Your task to perform on an android device: toggle data saver in the chrome app Image 0: 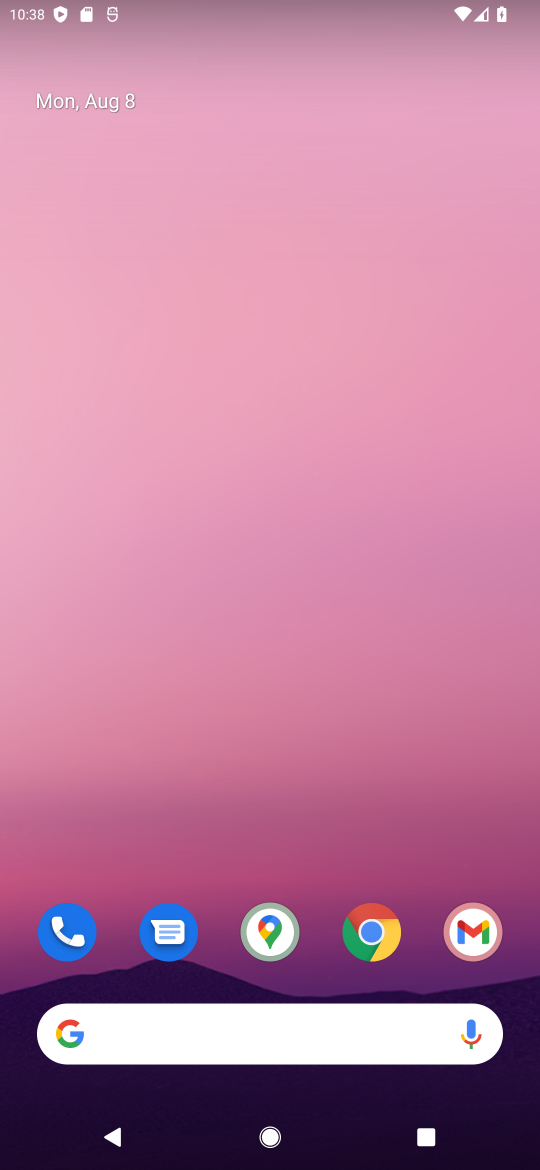
Step 0: click (391, 916)
Your task to perform on an android device: toggle data saver in the chrome app Image 1: 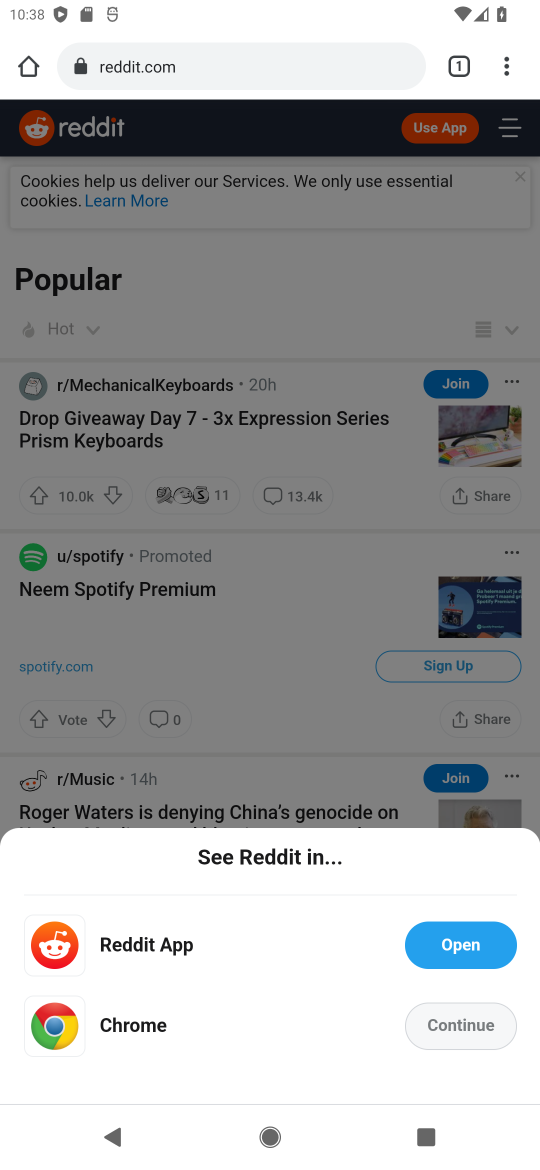
Step 1: click (525, 82)
Your task to perform on an android device: toggle data saver in the chrome app Image 2: 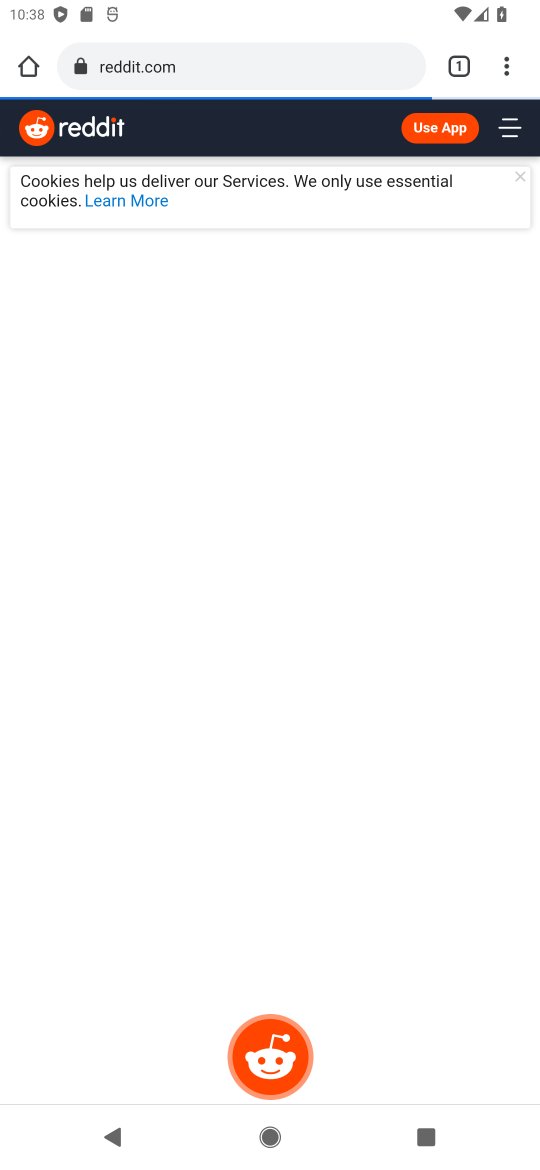
Step 2: click (507, 47)
Your task to perform on an android device: toggle data saver in the chrome app Image 3: 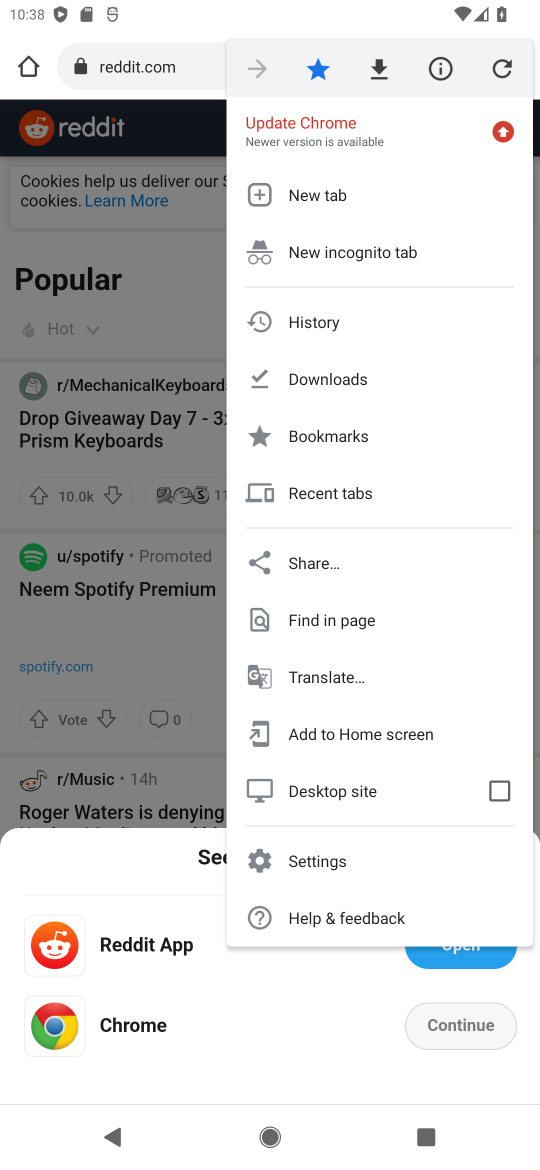
Step 3: click (331, 867)
Your task to perform on an android device: toggle data saver in the chrome app Image 4: 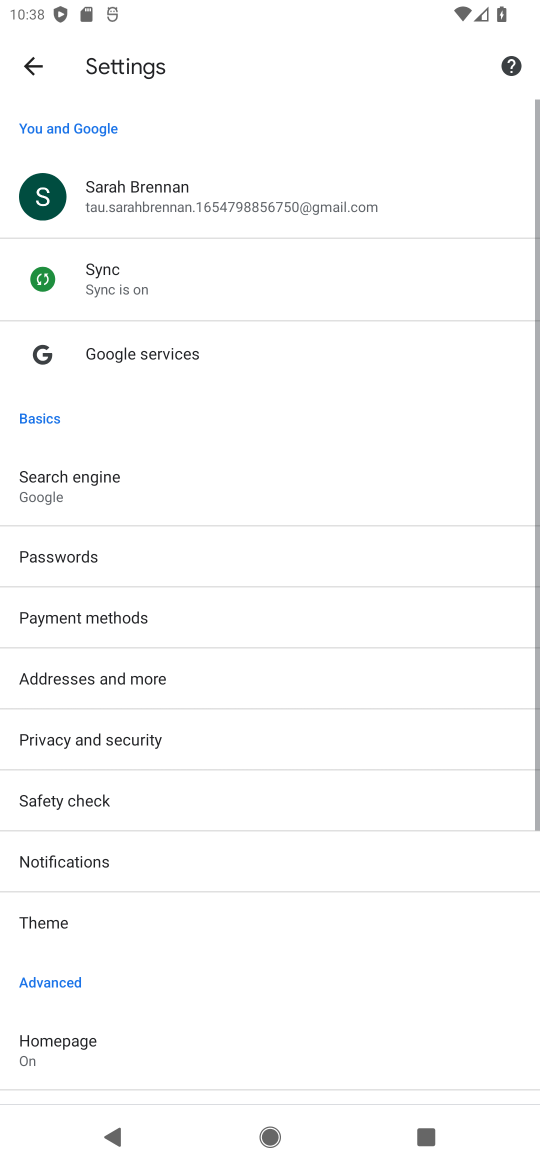
Step 4: drag from (165, 918) to (260, 334)
Your task to perform on an android device: toggle data saver in the chrome app Image 5: 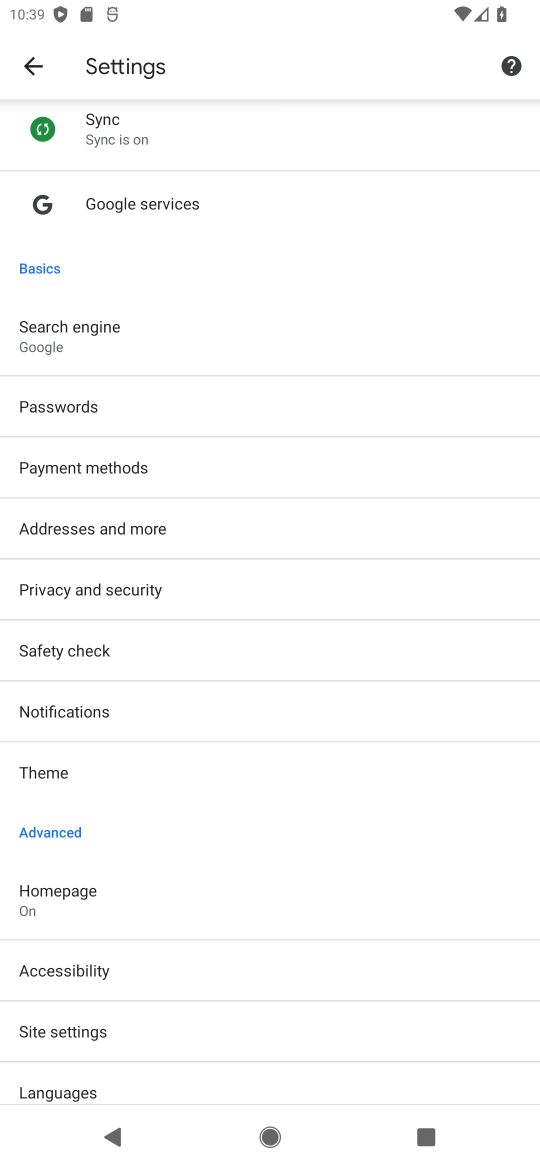
Step 5: drag from (127, 1012) to (196, 224)
Your task to perform on an android device: toggle data saver in the chrome app Image 6: 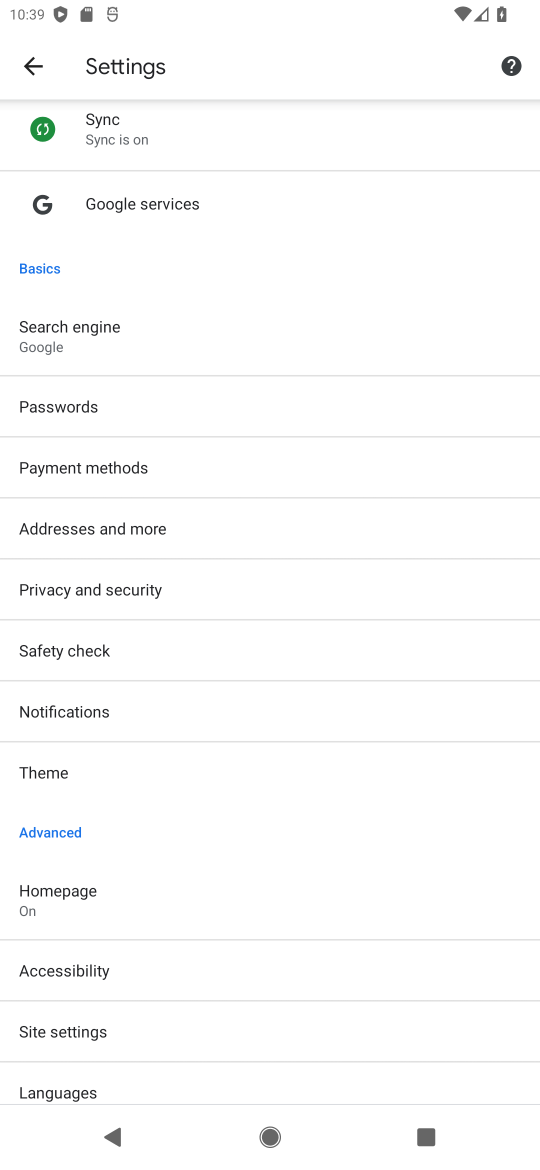
Step 6: drag from (260, 871) to (325, 575)
Your task to perform on an android device: toggle data saver in the chrome app Image 7: 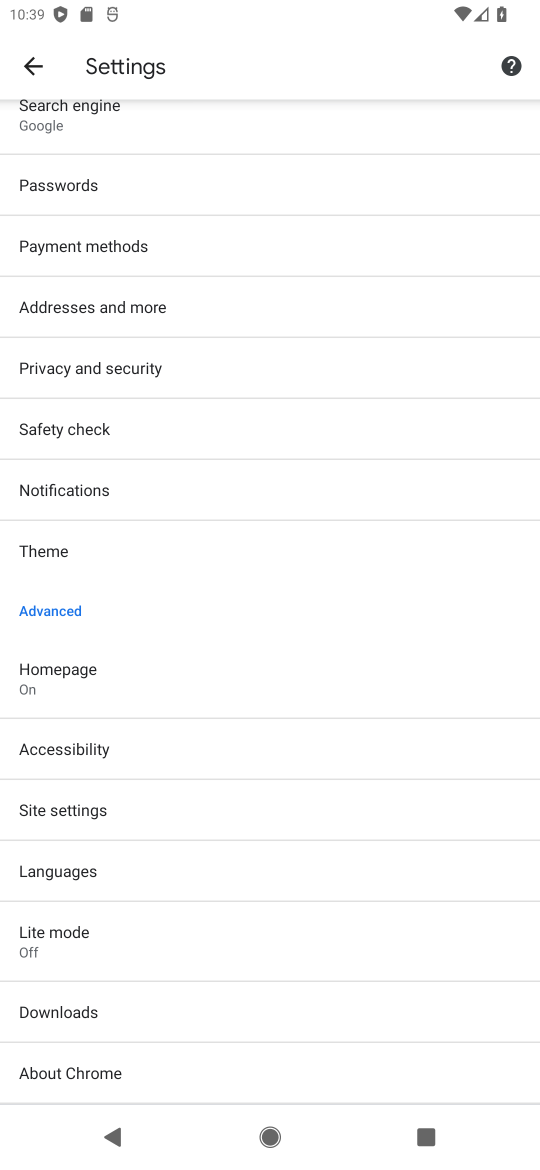
Step 7: click (86, 924)
Your task to perform on an android device: toggle data saver in the chrome app Image 8: 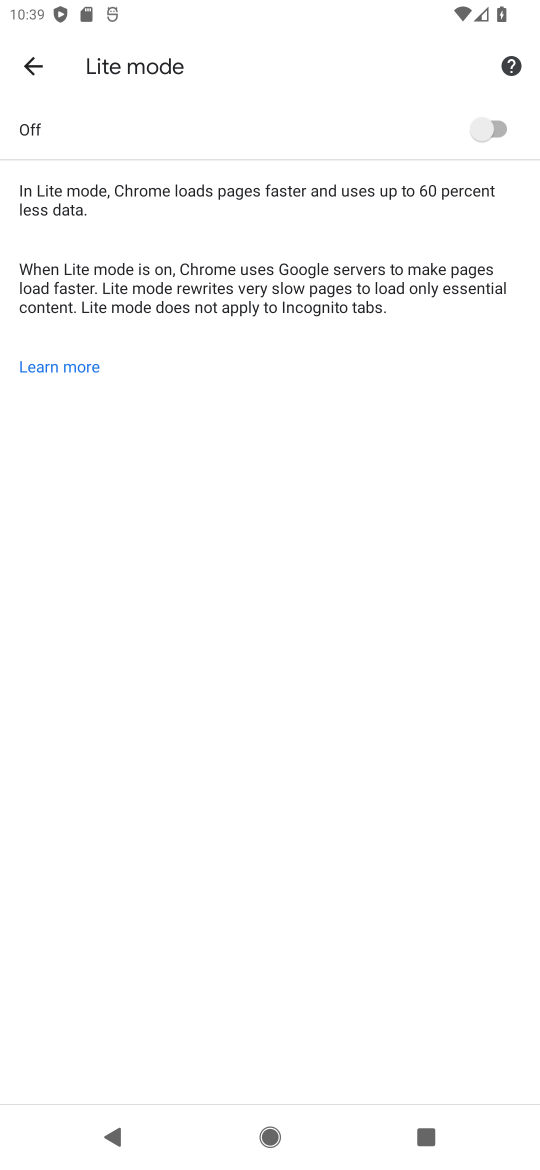
Step 8: click (495, 134)
Your task to perform on an android device: toggle data saver in the chrome app Image 9: 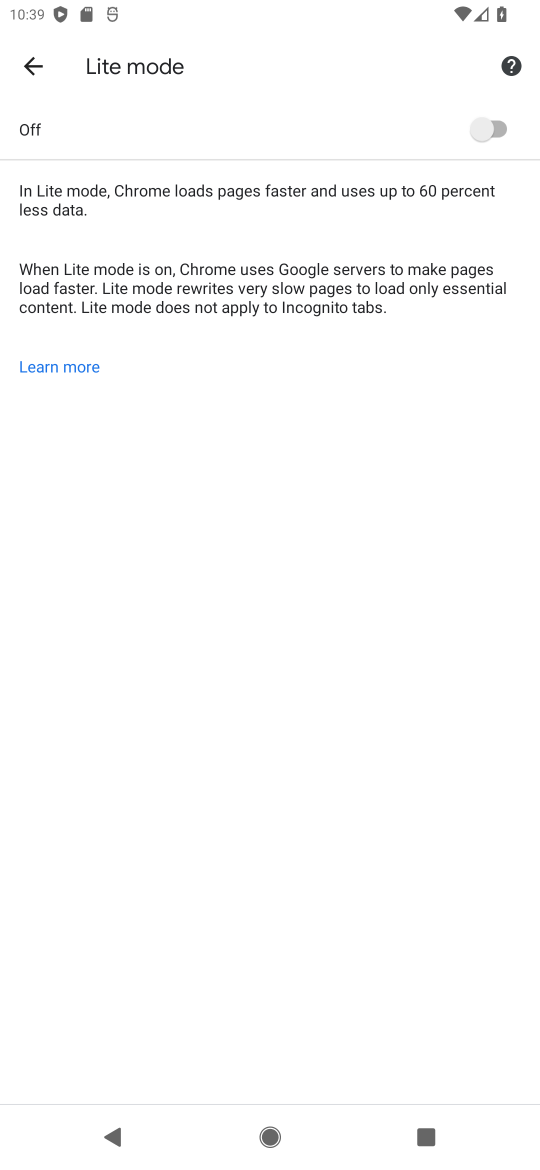
Step 9: click (495, 134)
Your task to perform on an android device: toggle data saver in the chrome app Image 10: 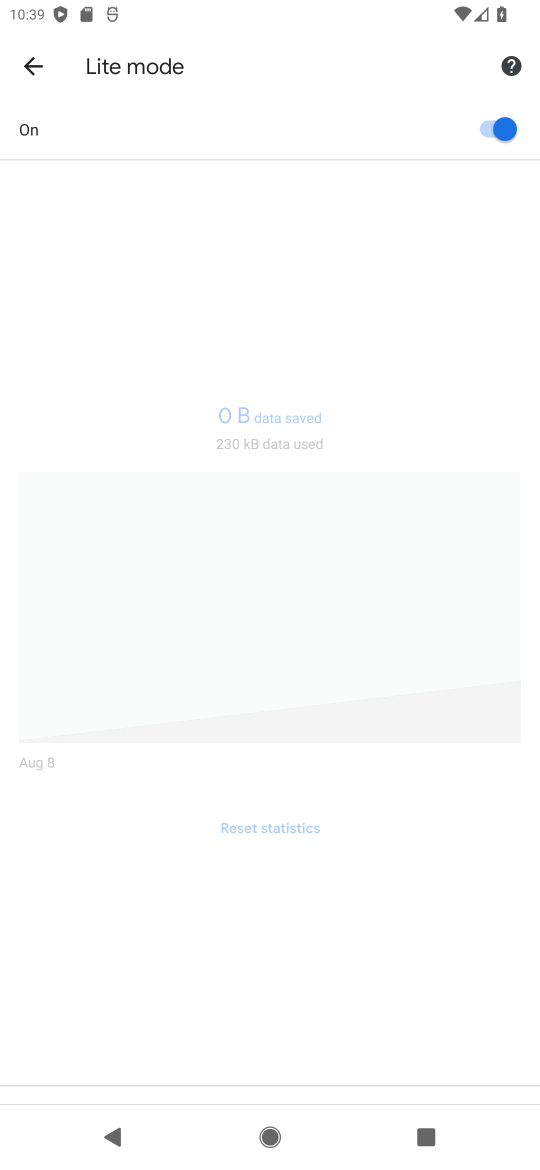
Step 10: click (495, 134)
Your task to perform on an android device: toggle data saver in the chrome app Image 11: 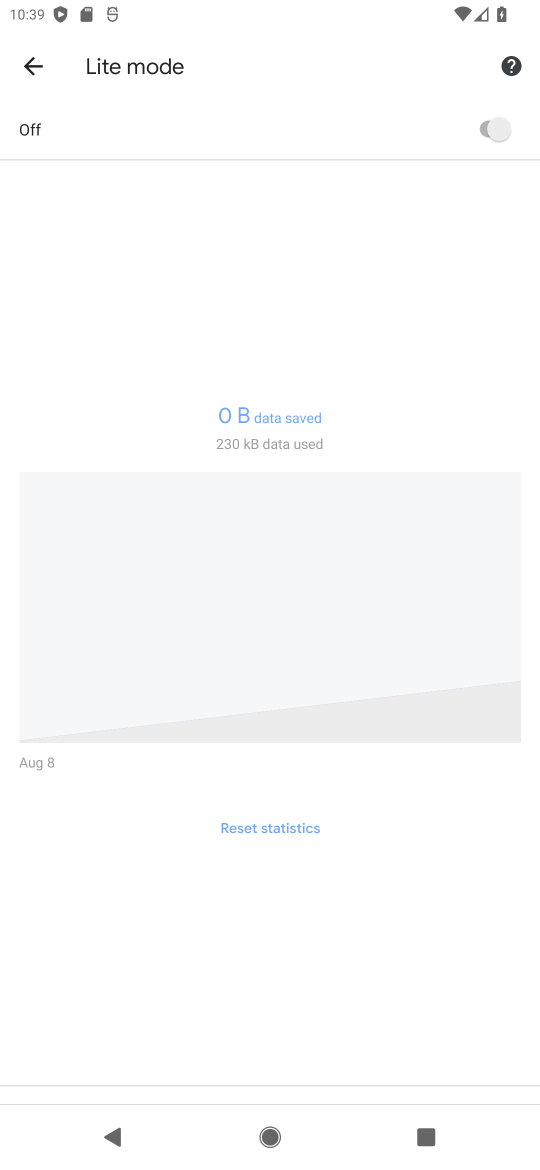
Step 11: click (495, 134)
Your task to perform on an android device: toggle data saver in the chrome app Image 12: 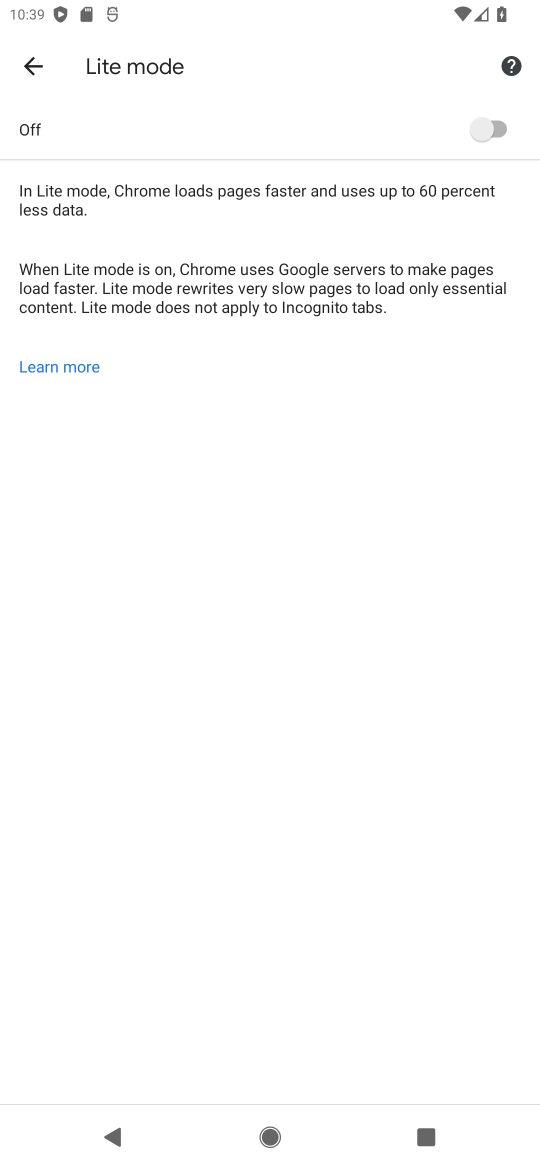
Step 12: click (495, 134)
Your task to perform on an android device: toggle data saver in the chrome app Image 13: 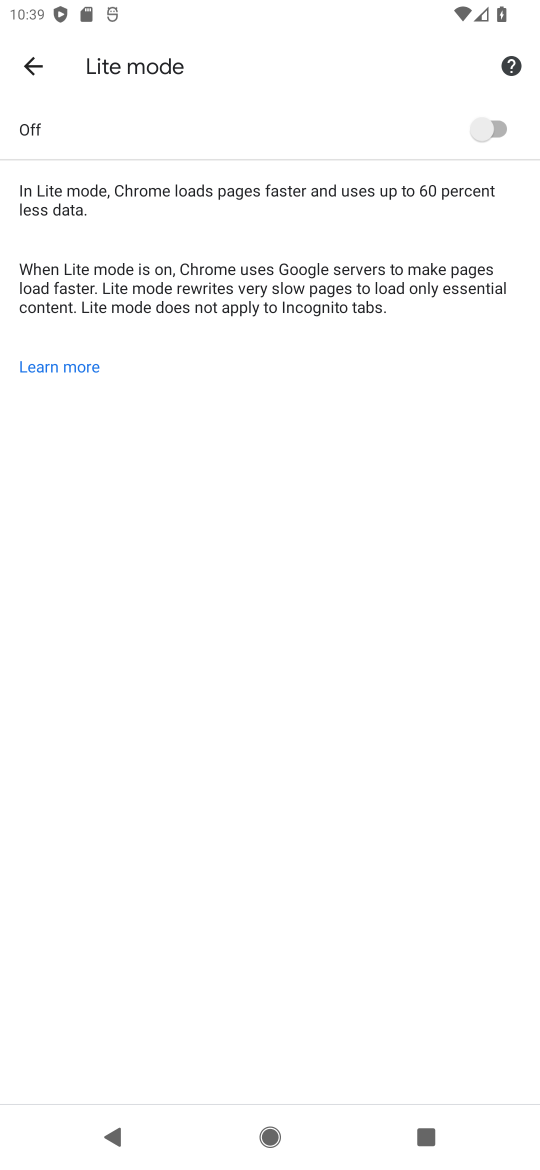
Step 13: click (495, 134)
Your task to perform on an android device: toggle data saver in the chrome app Image 14: 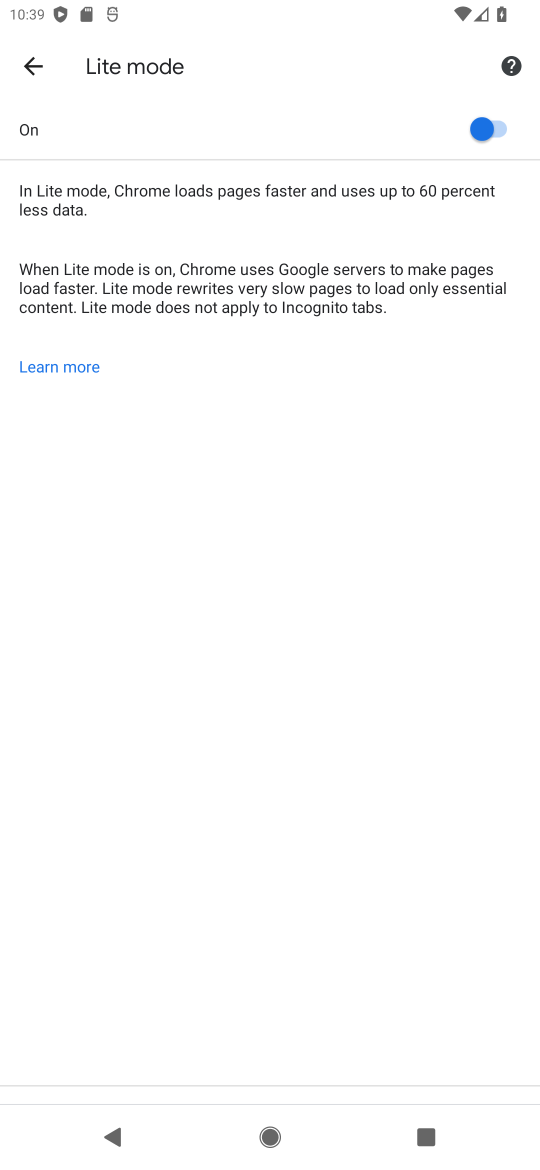
Step 14: click (495, 134)
Your task to perform on an android device: toggle data saver in the chrome app Image 15: 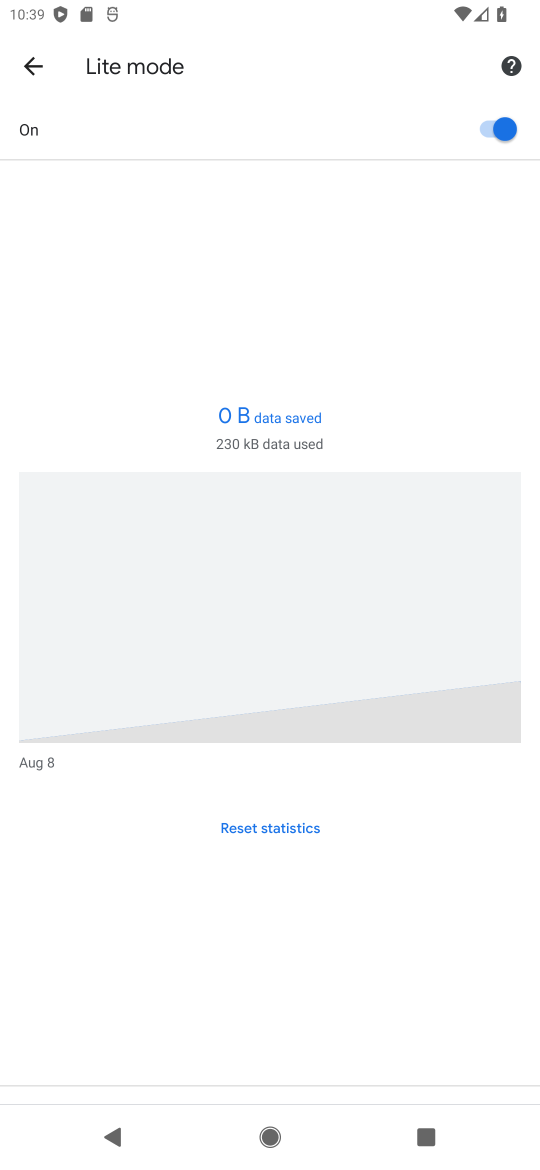
Step 15: task complete